Your task to perform on an android device: turn off priority inbox in the gmail app Image 0: 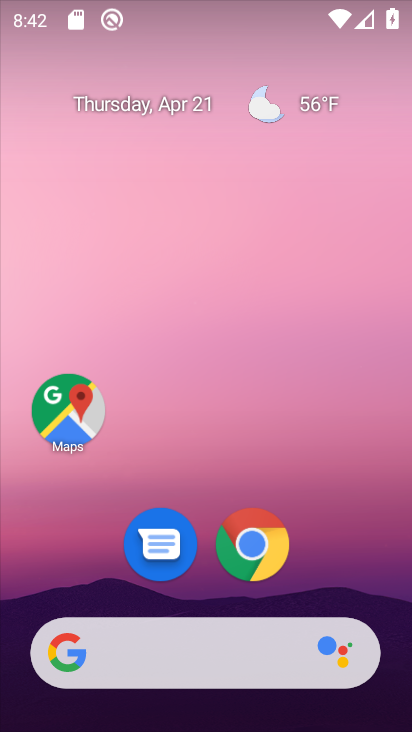
Step 0: drag from (206, 687) to (148, 122)
Your task to perform on an android device: turn off priority inbox in the gmail app Image 1: 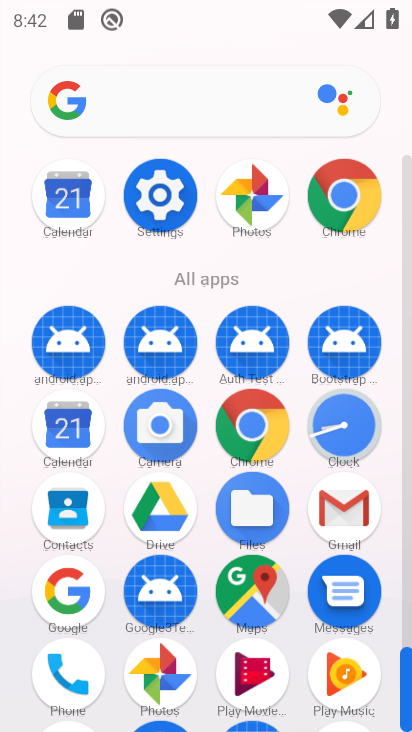
Step 1: click (346, 505)
Your task to perform on an android device: turn off priority inbox in the gmail app Image 2: 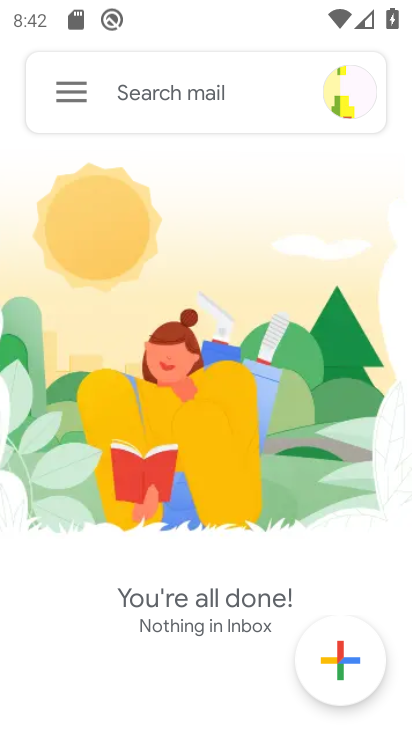
Step 2: click (70, 95)
Your task to perform on an android device: turn off priority inbox in the gmail app Image 3: 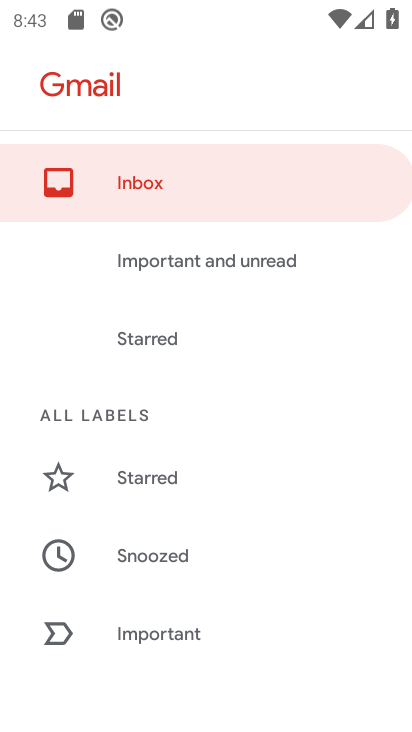
Step 3: drag from (161, 615) to (172, 284)
Your task to perform on an android device: turn off priority inbox in the gmail app Image 4: 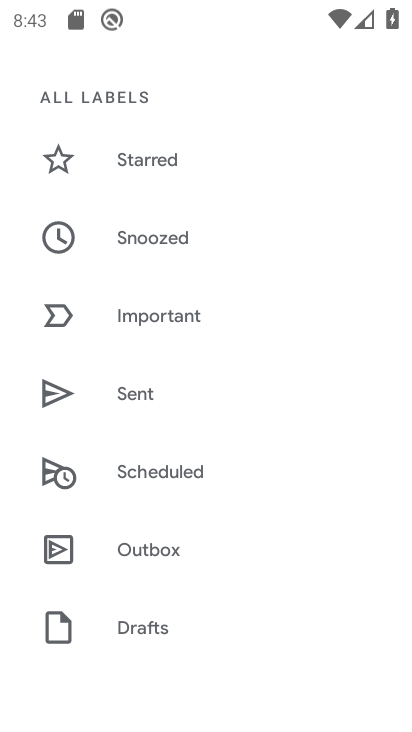
Step 4: drag from (167, 641) to (174, 229)
Your task to perform on an android device: turn off priority inbox in the gmail app Image 5: 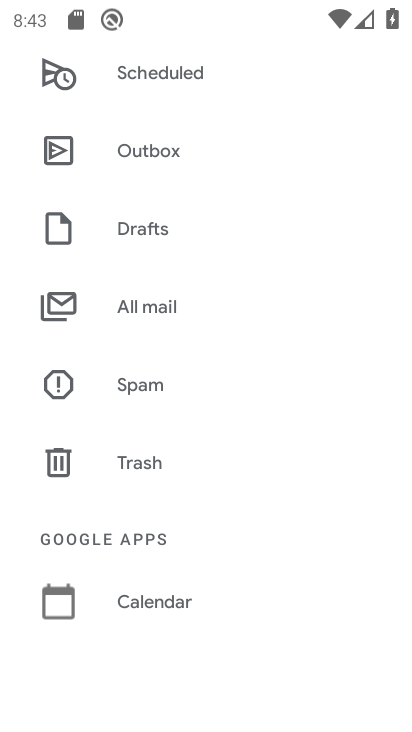
Step 5: drag from (163, 558) to (167, 325)
Your task to perform on an android device: turn off priority inbox in the gmail app Image 6: 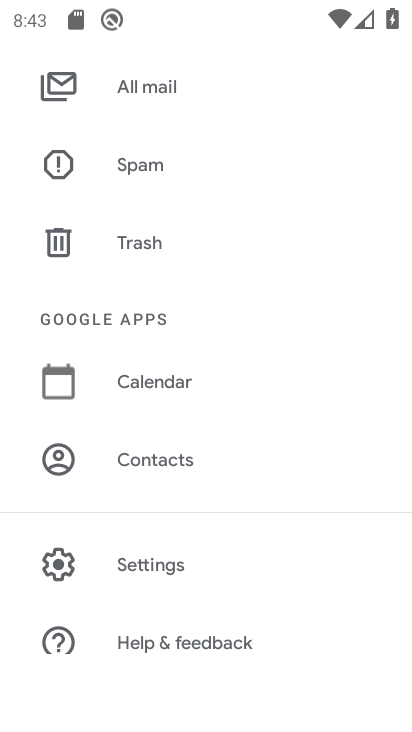
Step 6: click (146, 563)
Your task to perform on an android device: turn off priority inbox in the gmail app Image 7: 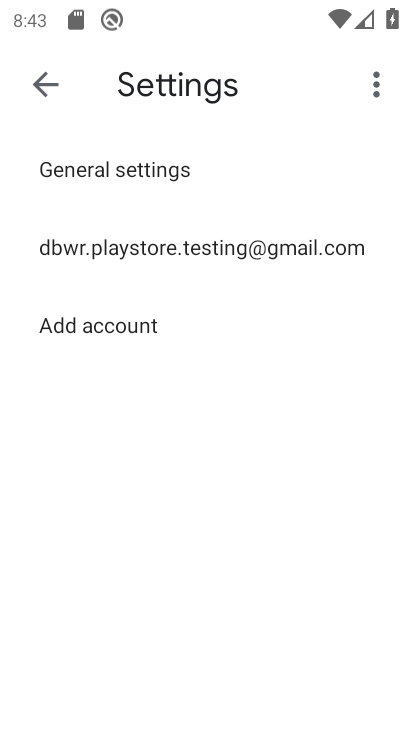
Step 7: click (208, 249)
Your task to perform on an android device: turn off priority inbox in the gmail app Image 8: 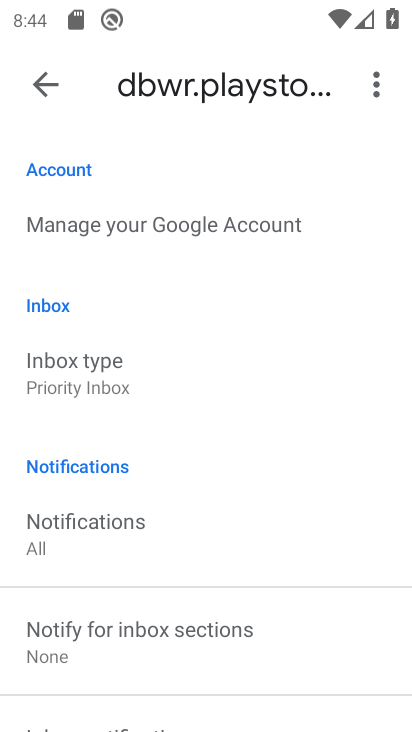
Step 8: click (88, 382)
Your task to perform on an android device: turn off priority inbox in the gmail app Image 9: 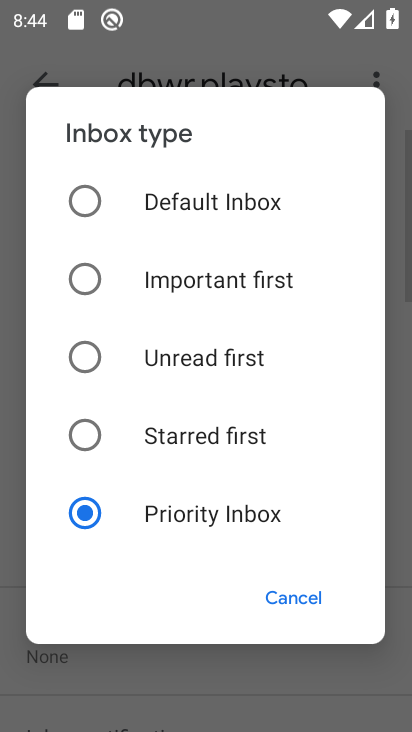
Step 9: click (89, 360)
Your task to perform on an android device: turn off priority inbox in the gmail app Image 10: 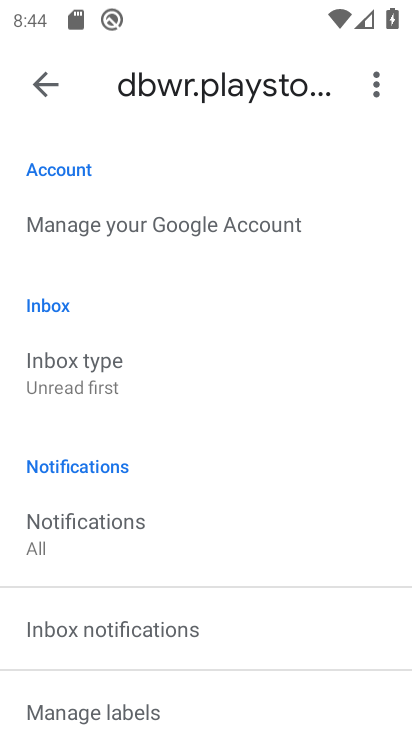
Step 10: task complete